Your task to perform on an android device: turn on data saver in the chrome app Image 0: 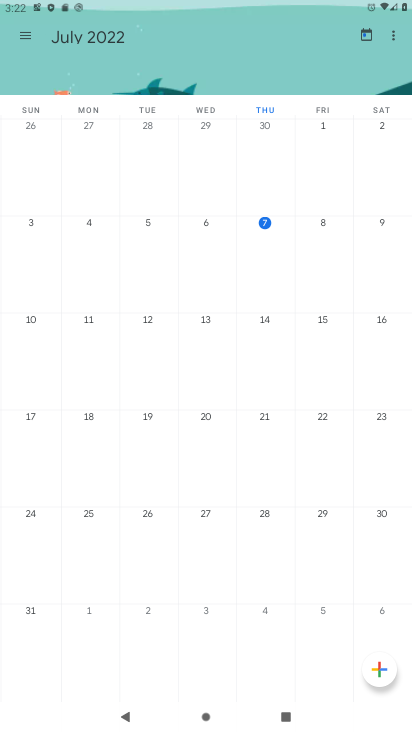
Step 0: press home button
Your task to perform on an android device: turn on data saver in the chrome app Image 1: 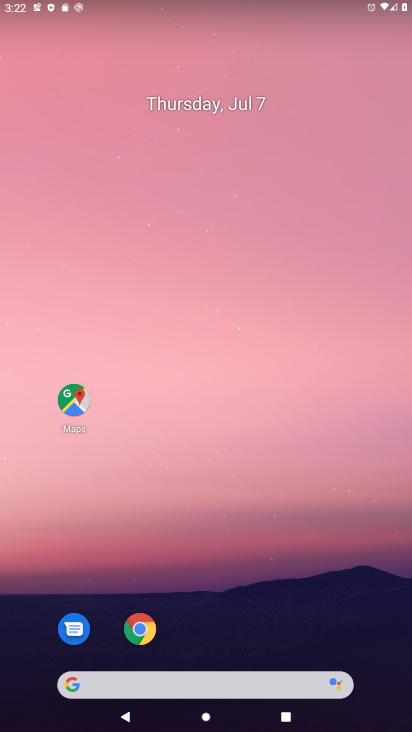
Step 1: click (137, 635)
Your task to perform on an android device: turn on data saver in the chrome app Image 2: 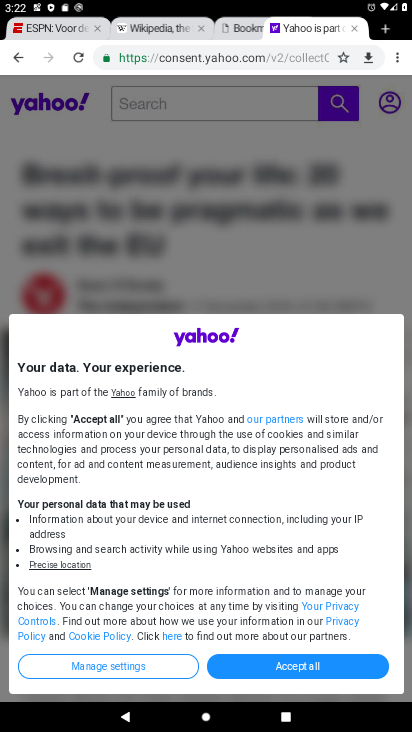
Step 2: click (404, 58)
Your task to perform on an android device: turn on data saver in the chrome app Image 3: 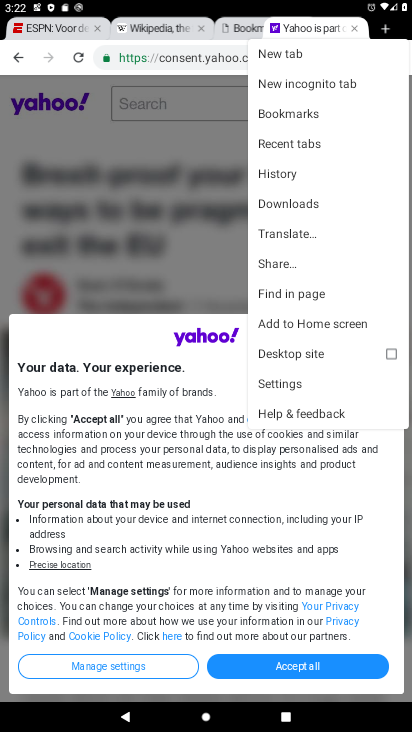
Step 3: click (275, 373)
Your task to perform on an android device: turn on data saver in the chrome app Image 4: 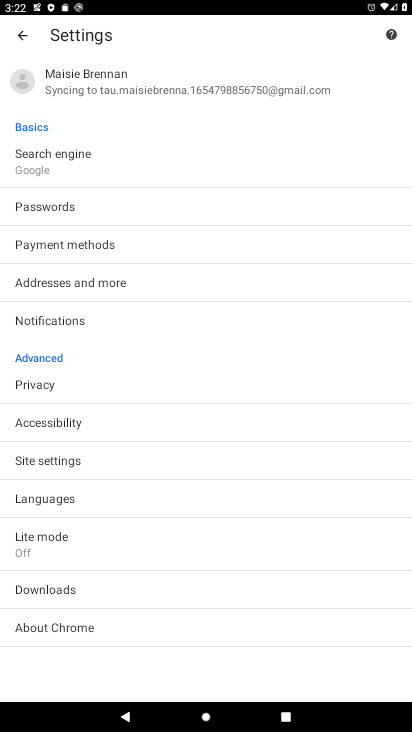
Step 4: click (45, 537)
Your task to perform on an android device: turn on data saver in the chrome app Image 5: 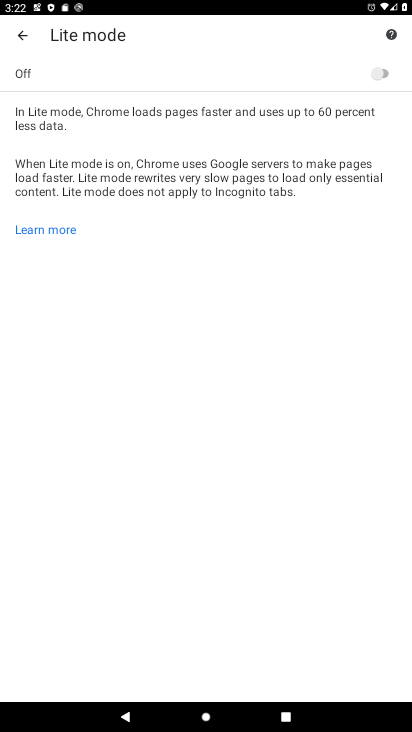
Step 5: click (386, 70)
Your task to perform on an android device: turn on data saver in the chrome app Image 6: 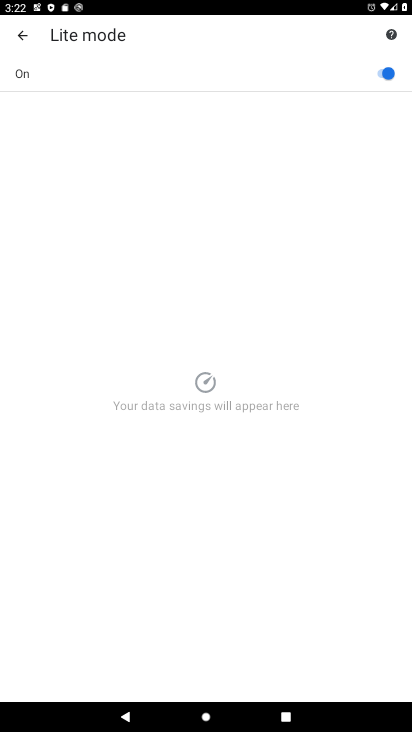
Step 6: task complete